Your task to perform on an android device: turn on airplane mode Image 0: 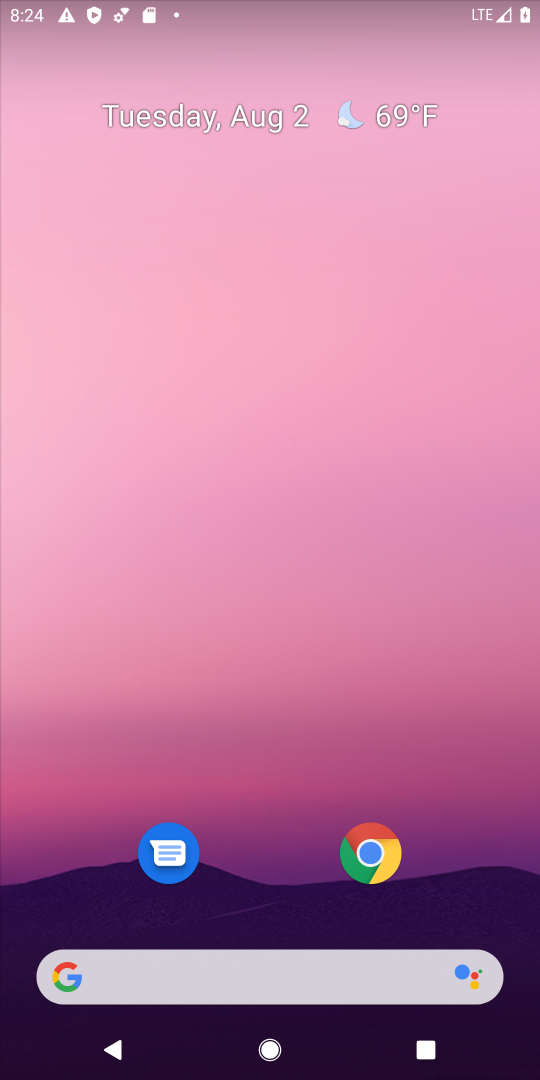
Step 0: drag from (250, 887) to (277, 18)
Your task to perform on an android device: turn on airplane mode Image 1: 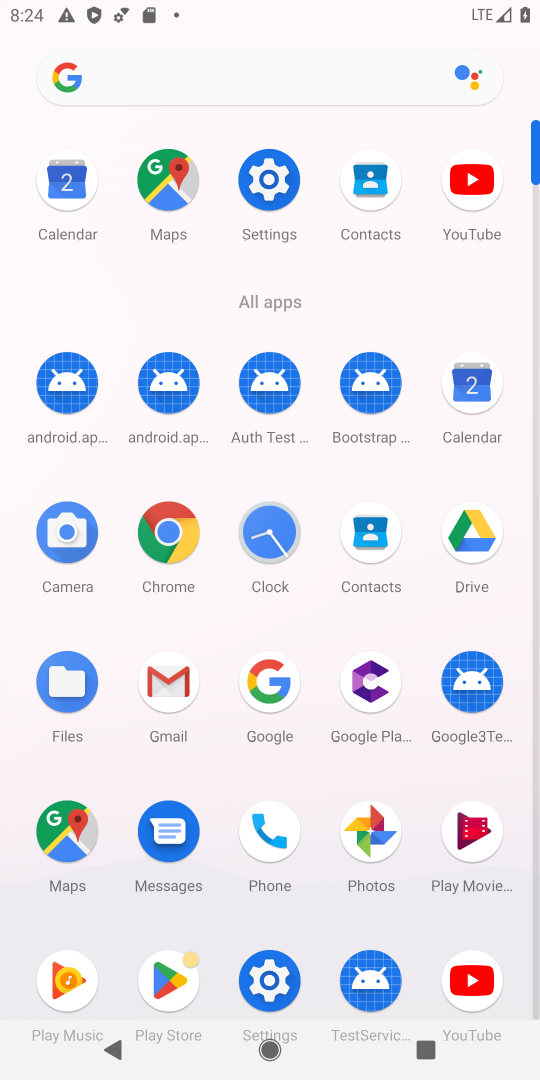
Step 1: click (268, 173)
Your task to perform on an android device: turn on airplane mode Image 2: 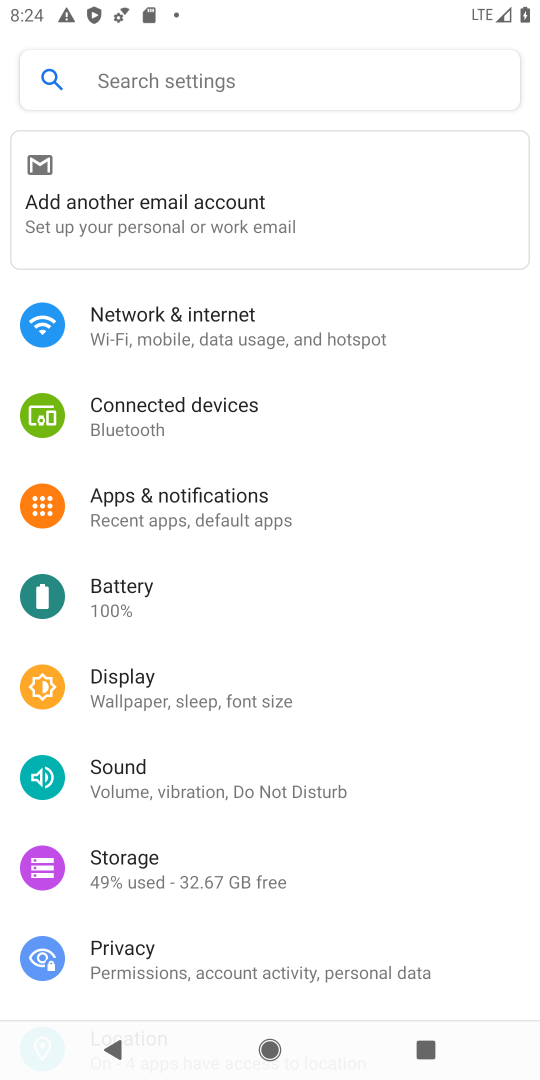
Step 2: click (247, 323)
Your task to perform on an android device: turn on airplane mode Image 3: 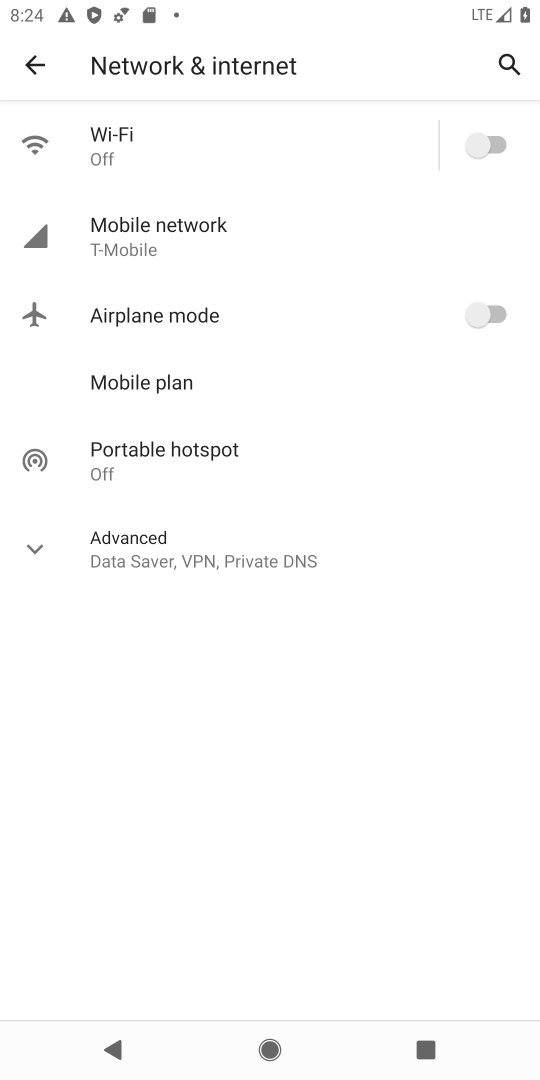
Step 3: click (493, 308)
Your task to perform on an android device: turn on airplane mode Image 4: 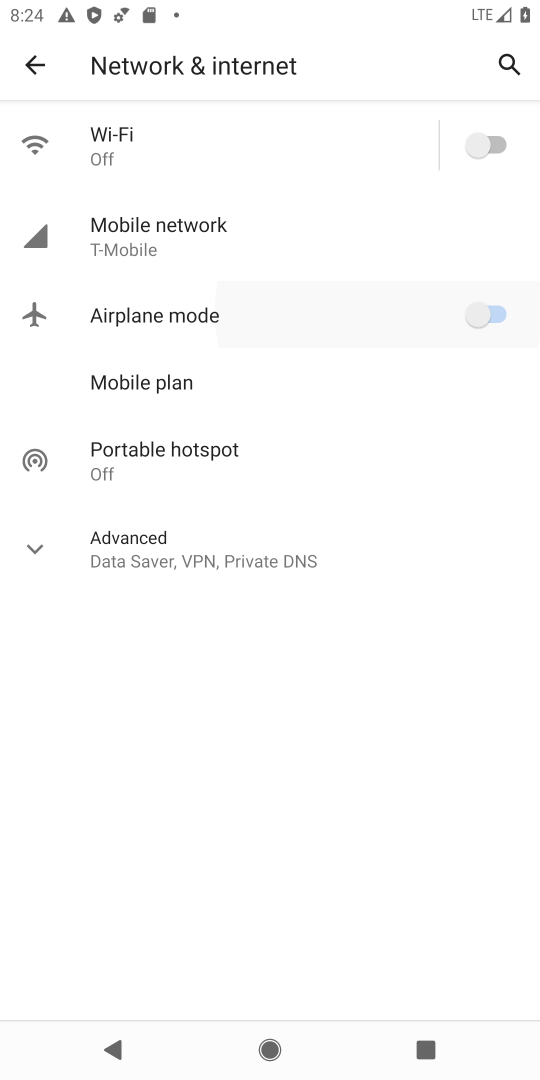
Step 4: click (493, 308)
Your task to perform on an android device: turn on airplane mode Image 5: 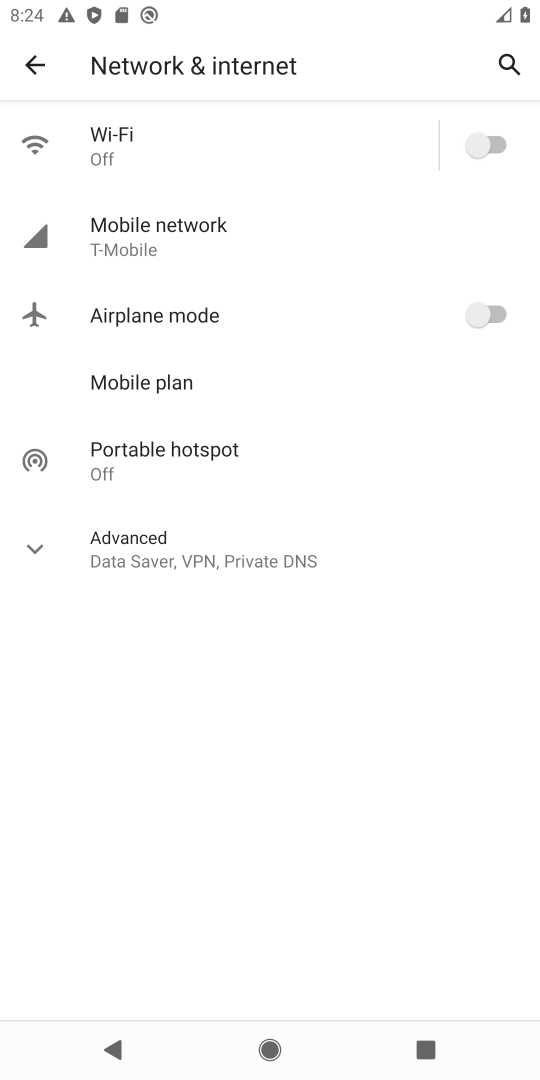
Step 5: click (493, 308)
Your task to perform on an android device: turn on airplane mode Image 6: 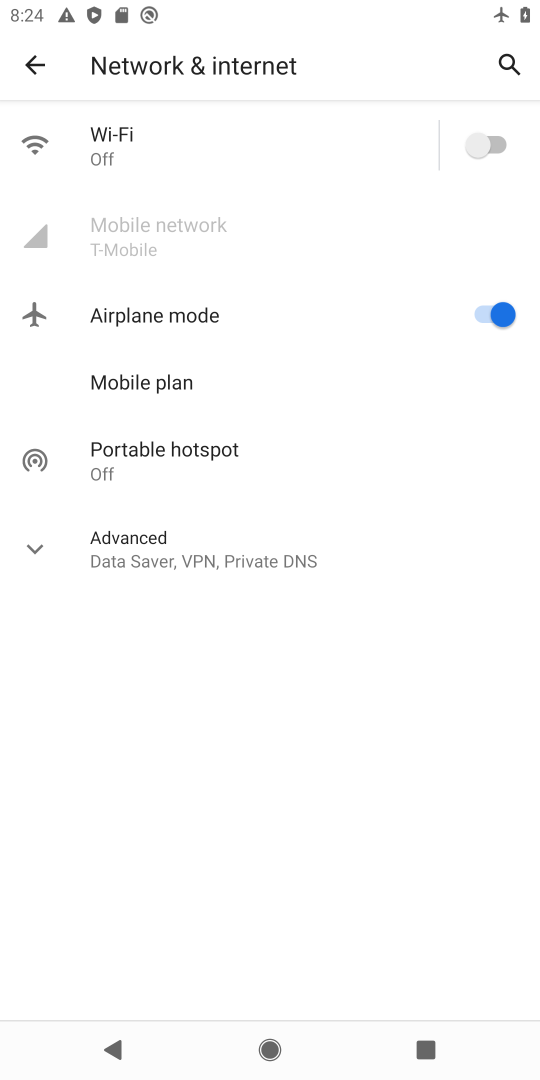
Step 6: task complete